Your task to perform on an android device: open app "Gboard" Image 0: 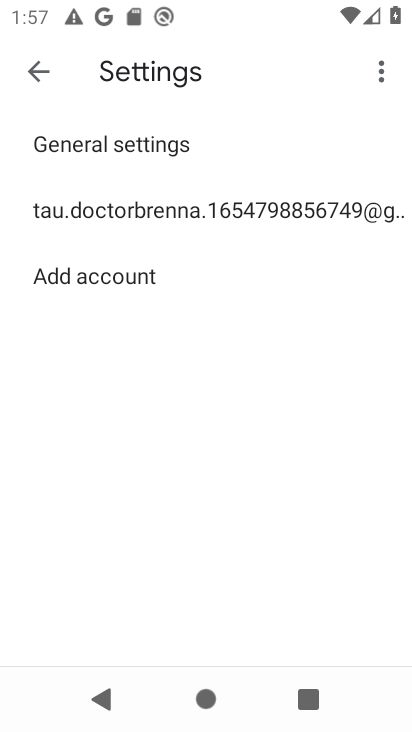
Step 0: press home button
Your task to perform on an android device: open app "Gboard" Image 1: 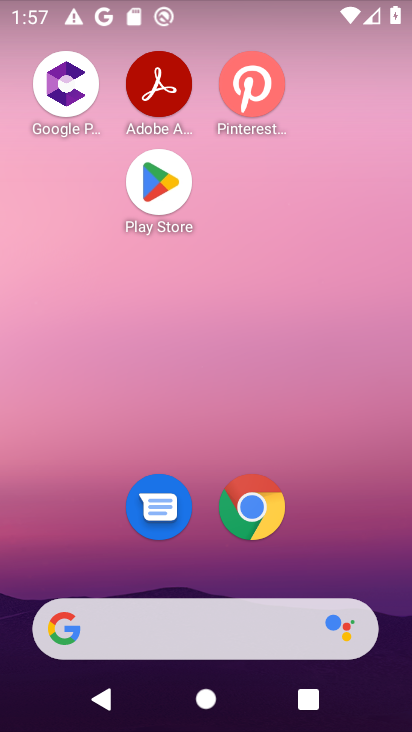
Step 1: click (174, 232)
Your task to perform on an android device: open app "Gboard" Image 2: 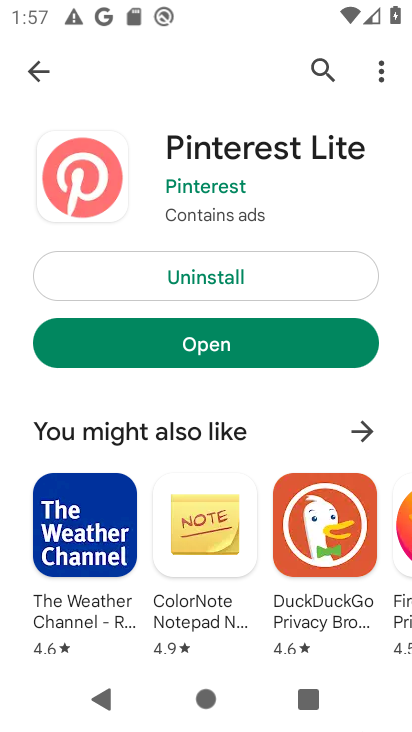
Step 2: click (335, 89)
Your task to perform on an android device: open app "Gboard" Image 3: 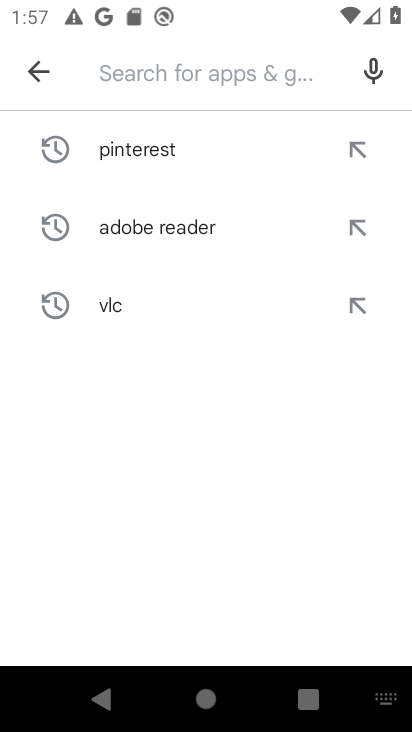
Step 3: type "gboard"
Your task to perform on an android device: open app "Gboard" Image 4: 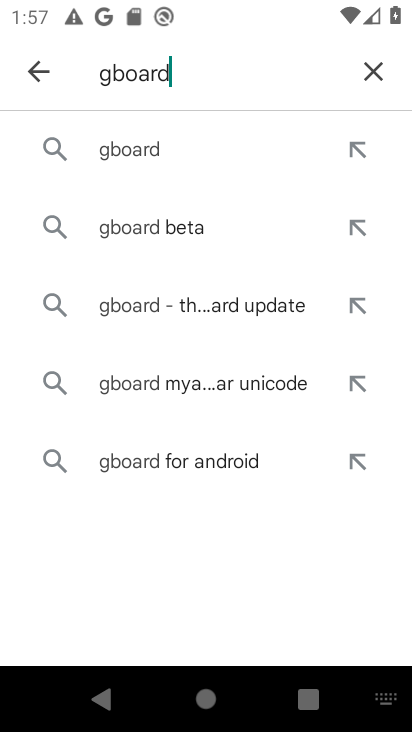
Step 4: click (208, 157)
Your task to perform on an android device: open app "Gboard" Image 5: 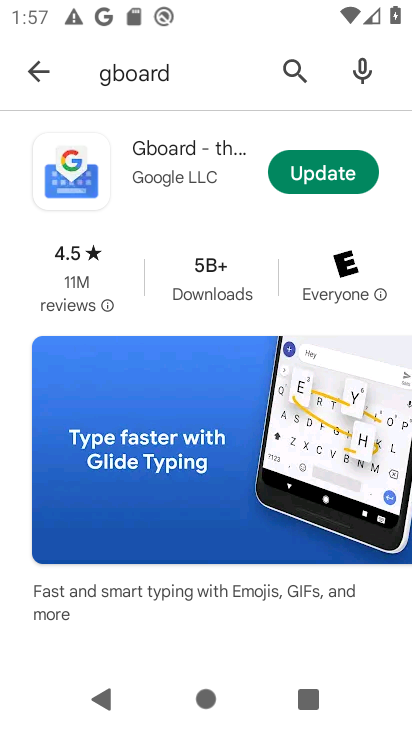
Step 5: click (299, 175)
Your task to perform on an android device: open app "Gboard" Image 6: 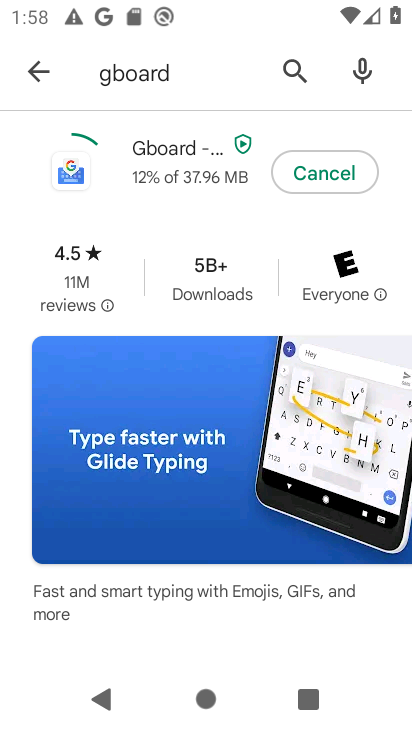
Step 6: task complete